Your task to perform on an android device: turn off airplane mode Image 0: 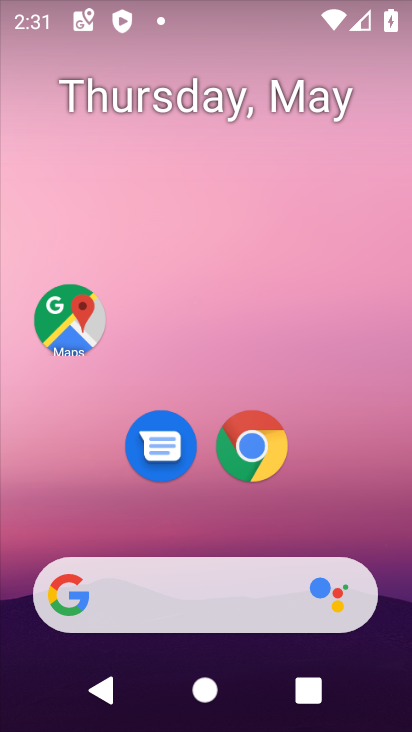
Step 0: drag from (189, 514) to (190, 42)
Your task to perform on an android device: turn off airplane mode Image 1: 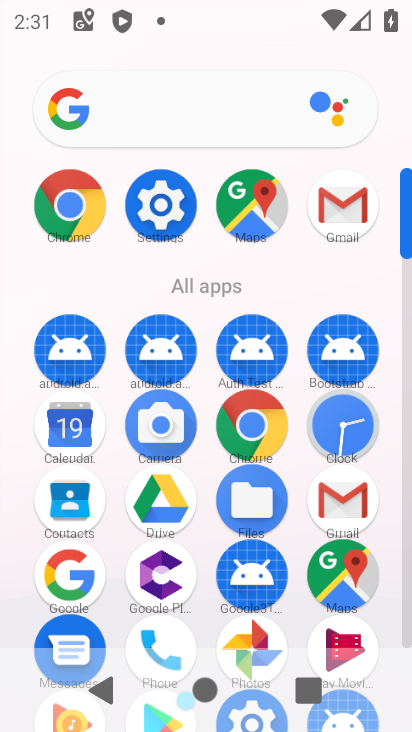
Step 1: click (156, 225)
Your task to perform on an android device: turn off airplane mode Image 2: 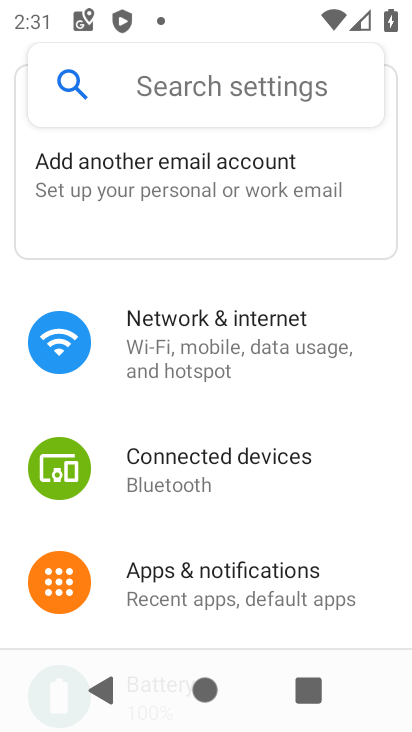
Step 2: drag from (249, 580) to (270, 398)
Your task to perform on an android device: turn off airplane mode Image 3: 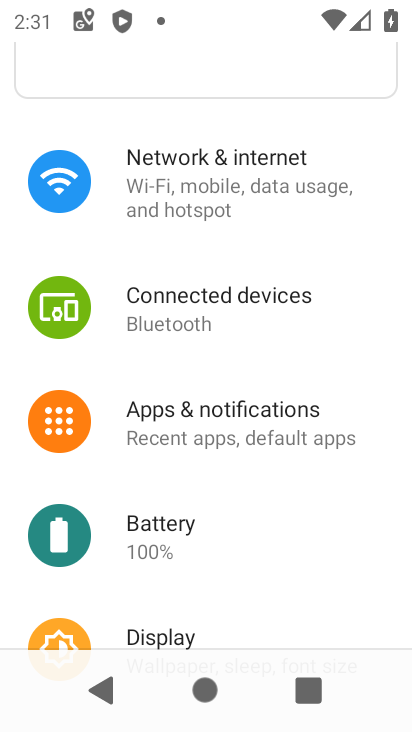
Step 3: click (223, 193)
Your task to perform on an android device: turn off airplane mode Image 4: 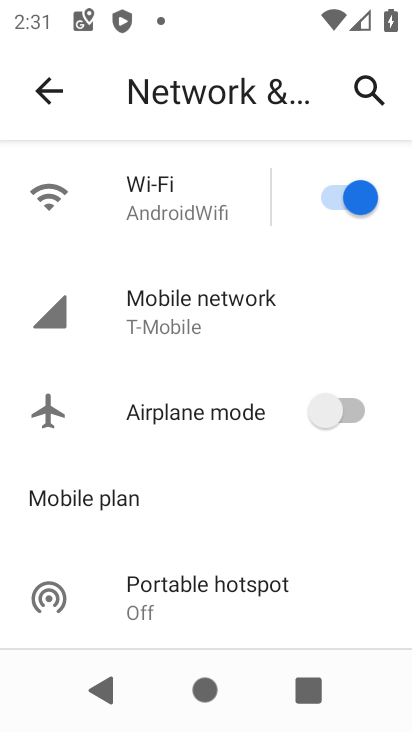
Step 4: task complete